Your task to perform on an android device: visit the assistant section in the google photos Image 0: 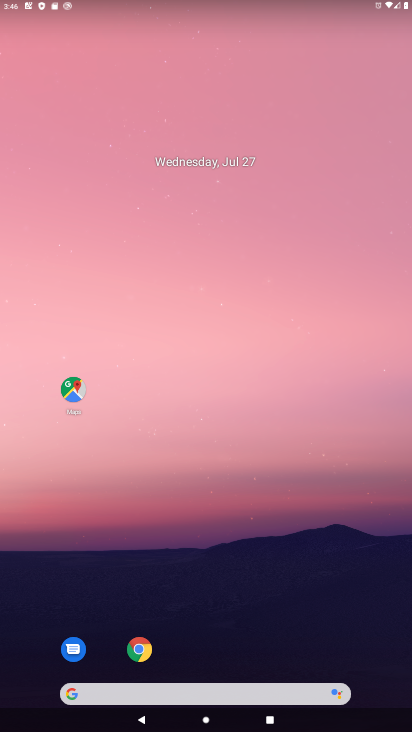
Step 0: drag from (386, 675) to (321, 155)
Your task to perform on an android device: visit the assistant section in the google photos Image 1: 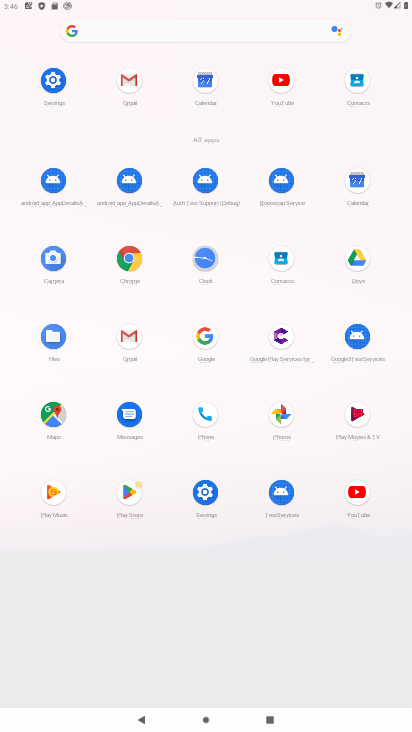
Step 1: click (282, 414)
Your task to perform on an android device: visit the assistant section in the google photos Image 2: 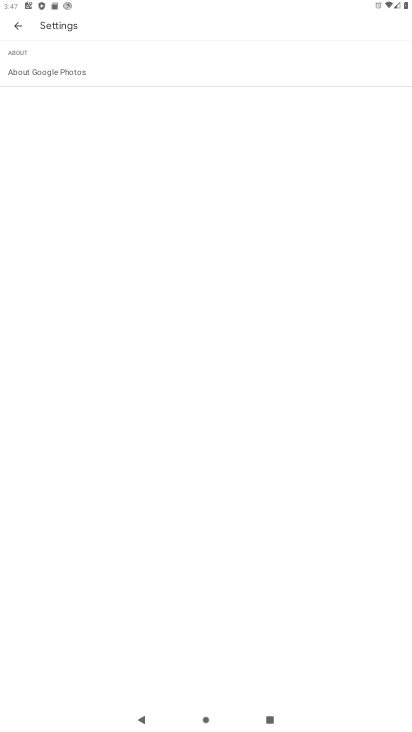
Step 2: press back button
Your task to perform on an android device: visit the assistant section in the google photos Image 3: 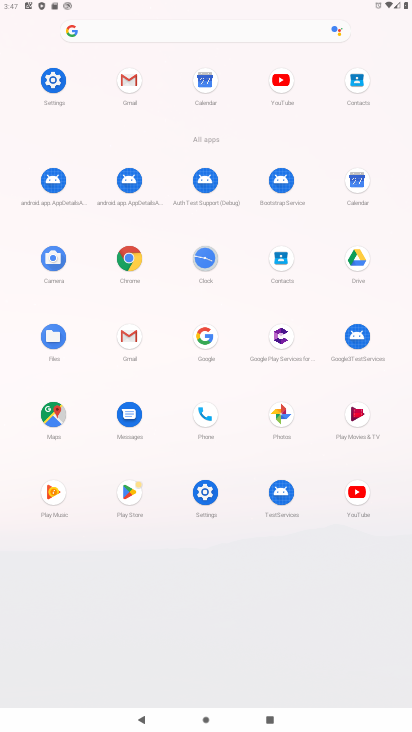
Step 3: click (280, 413)
Your task to perform on an android device: visit the assistant section in the google photos Image 4: 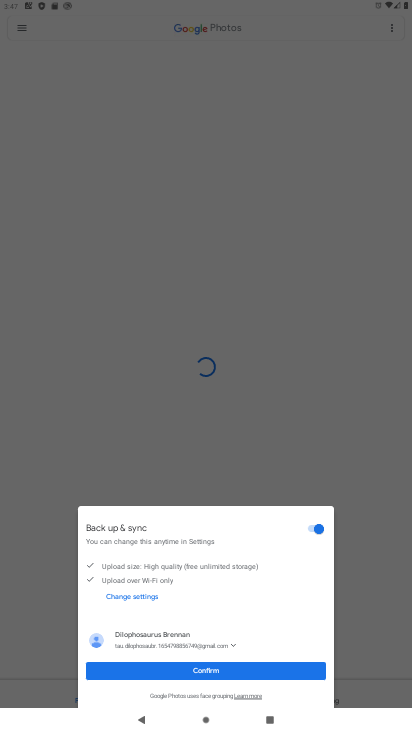
Step 4: click (207, 670)
Your task to perform on an android device: visit the assistant section in the google photos Image 5: 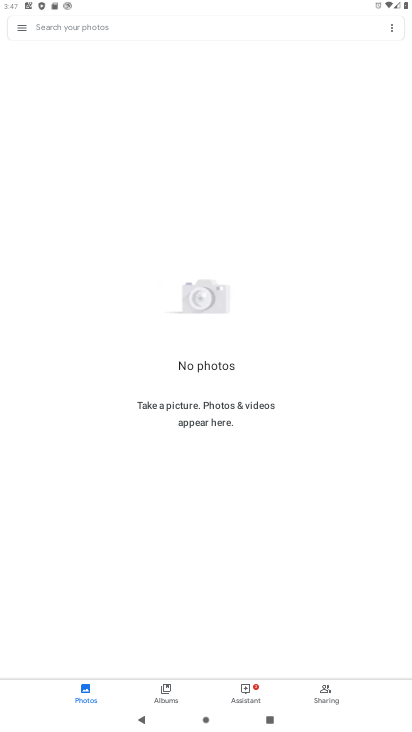
Step 5: click (247, 693)
Your task to perform on an android device: visit the assistant section in the google photos Image 6: 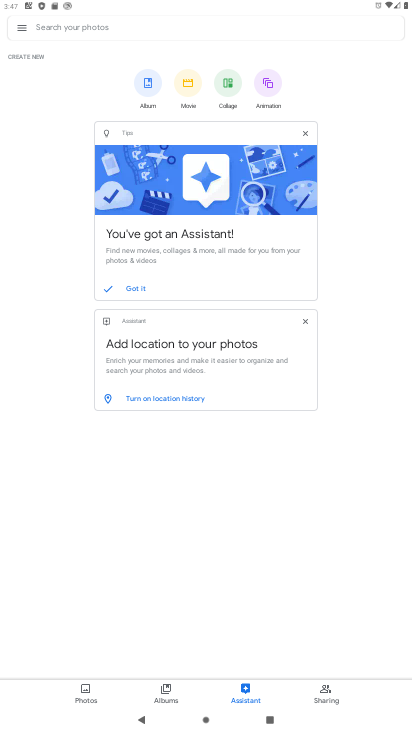
Step 6: task complete